Your task to perform on an android device: Do I have any events today? Image 0: 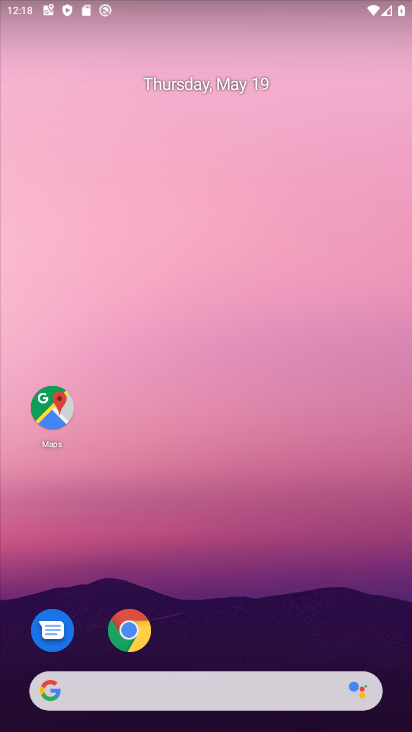
Step 0: drag from (208, 402) to (224, 114)
Your task to perform on an android device: Do I have any events today? Image 1: 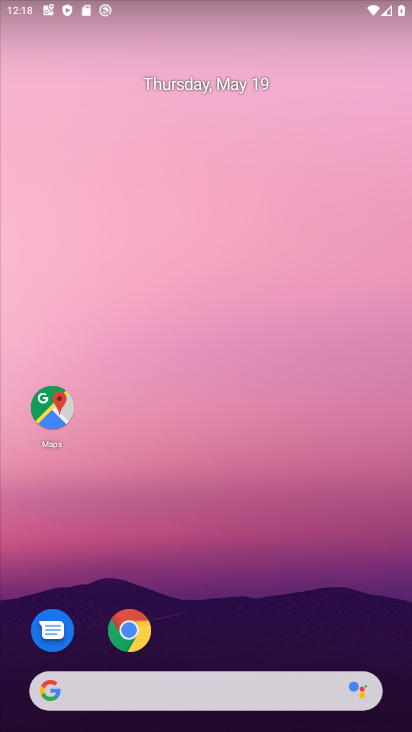
Step 1: drag from (213, 652) to (214, 332)
Your task to perform on an android device: Do I have any events today? Image 2: 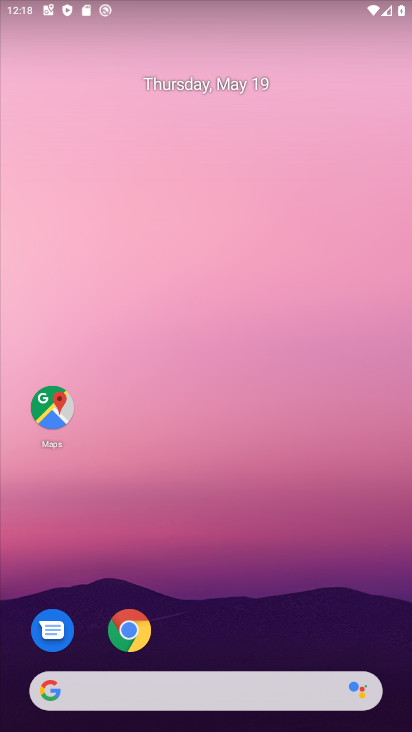
Step 2: drag from (187, 660) to (229, 249)
Your task to perform on an android device: Do I have any events today? Image 3: 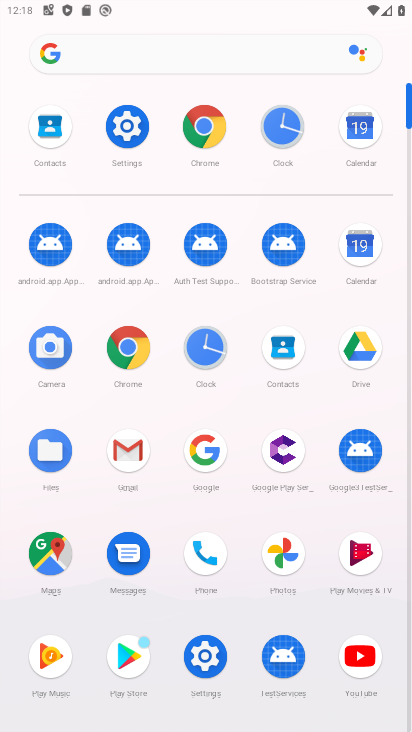
Step 3: click (360, 249)
Your task to perform on an android device: Do I have any events today? Image 4: 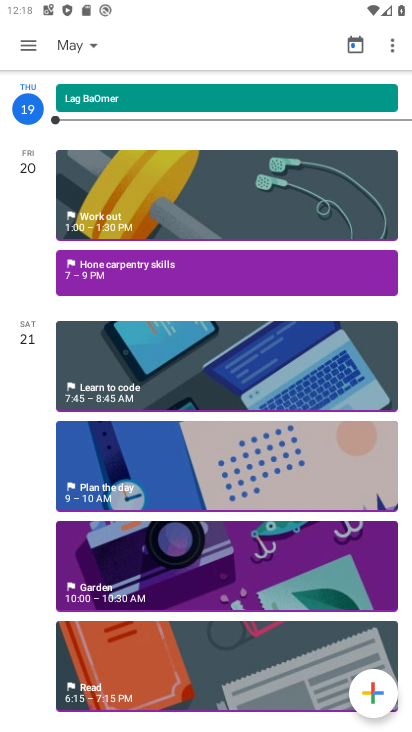
Step 4: drag from (294, 498) to (338, 63)
Your task to perform on an android device: Do I have any events today? Image 5: 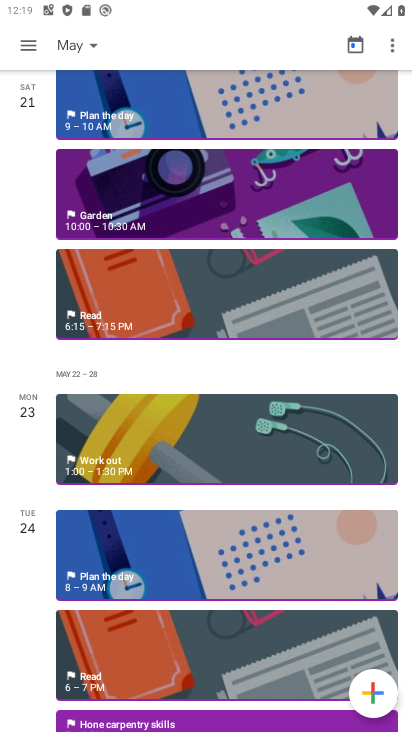
Step 5: click (62, 62)
Your task to perform on an android device: Do I have any events today? Image 6: 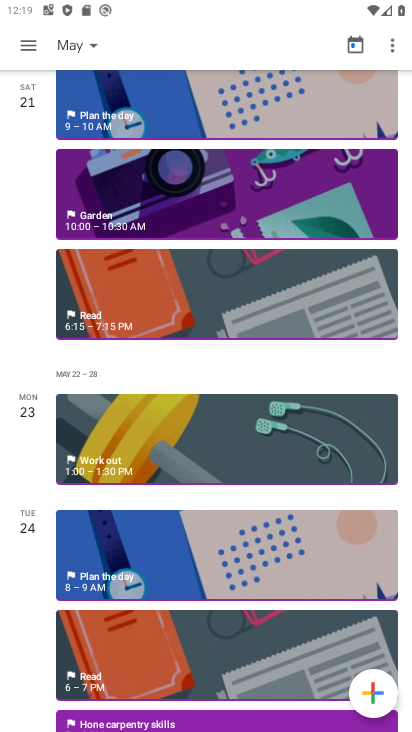
Step 6: click (91, 45)
Your task to perform on an android device: Do I have any events today? Image 7: 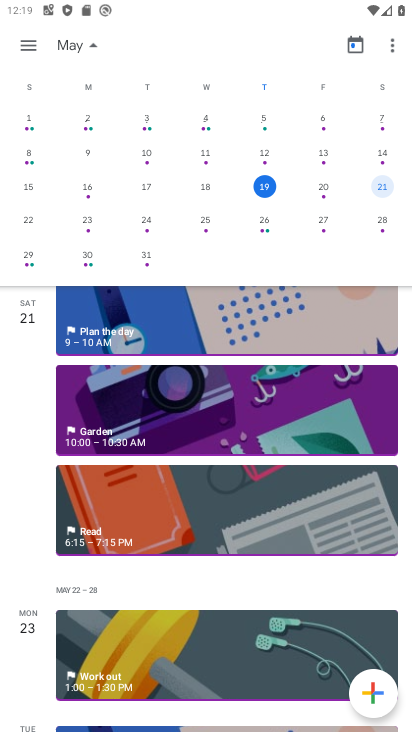
Step 7: click (271, 180)
Your task to perform on an android device: Do I have any events today? Image 8: 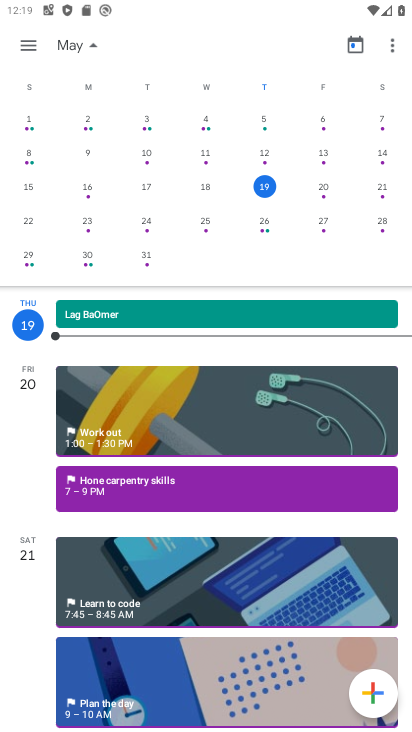
Step 8: task complete